Your task to perform on an android device: Open Android settings Image 0: 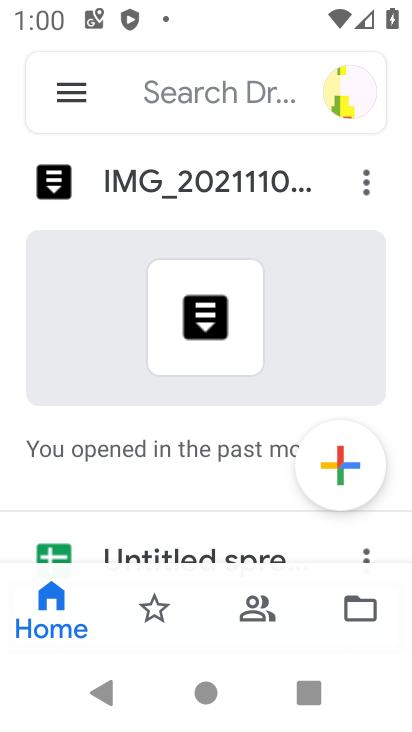
Step 0: press home button
Your task to perform on an android device: Open Android settings Image 1: 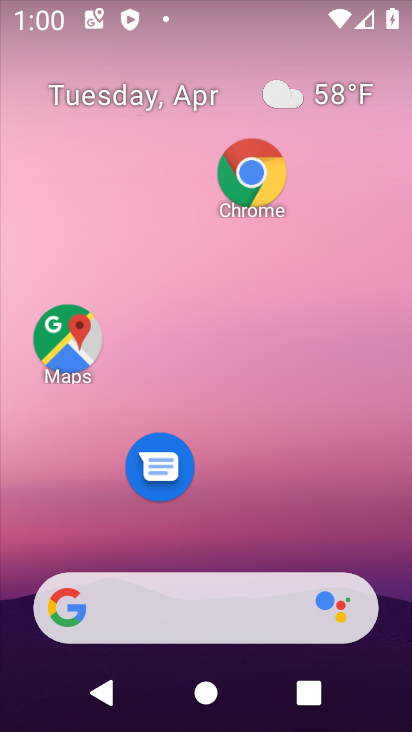
Step 1: drag from (317, 478) to (330, 8)
Your task to perform on an android device: Open Android settings Image 2: 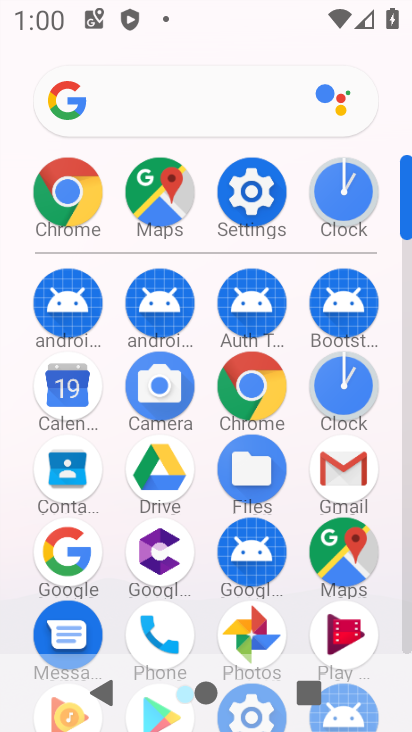
Step 2: drag from (288, 680) to (321, 185)
Your task to perform on an android device: Open Android settings Image 3: 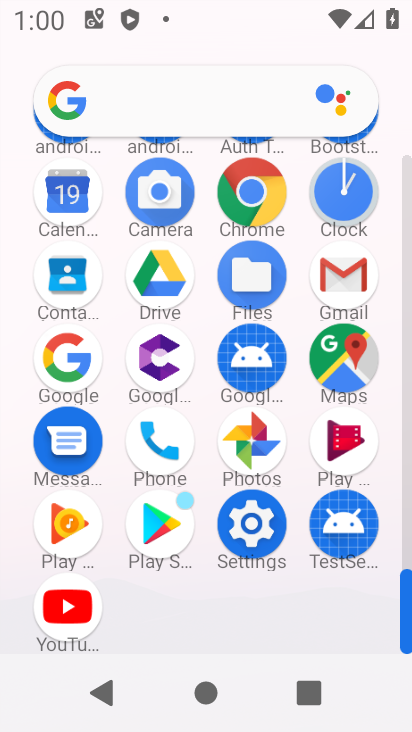
Step 3: click (256, 546)
Your task to perform on an android device: Open Android settings Image 4: 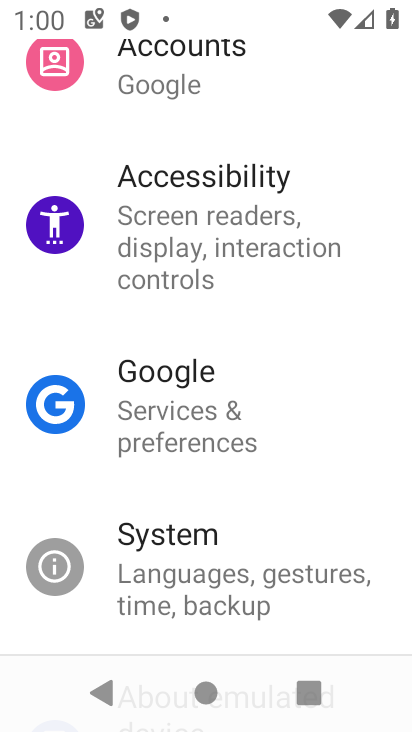
Step 4: drag from (263, 589) to (388, 51)
Your task to perform on an android device: Open Android settings Image 5: 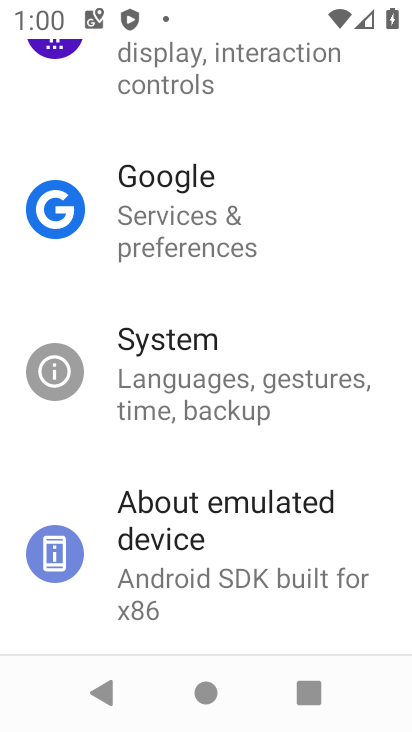
Step 5: click (264, 575)
Your task to perform on an android device: Open Android settings Image 6: 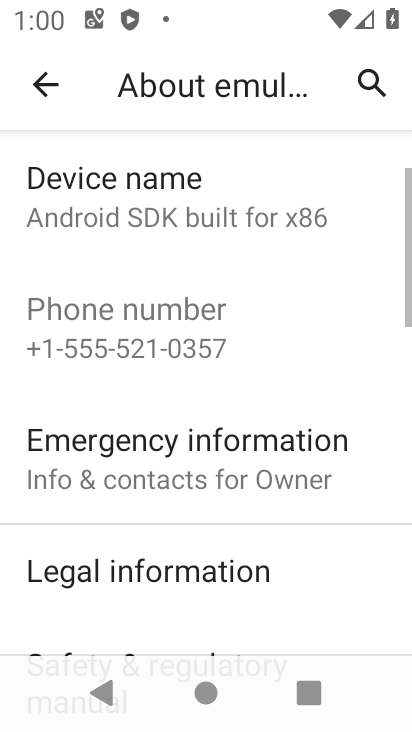
Step 6: drag from (263, 573) to (346, 97)
Your task to perform on an android device: Open Android settings Image 7: 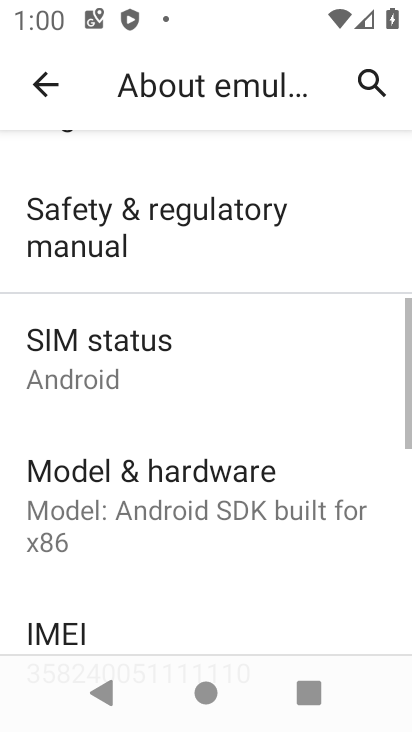
Step 7: drag from (281, 536) to (284, 126)
Your task to perform on an android device: Open Android settings Image 8: 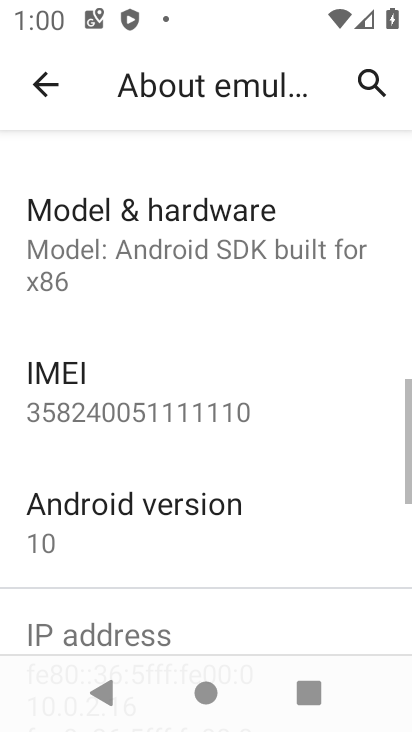
Step 8: click (213, 531)
Your task to perform on an android device: Open Android settings Image 9: 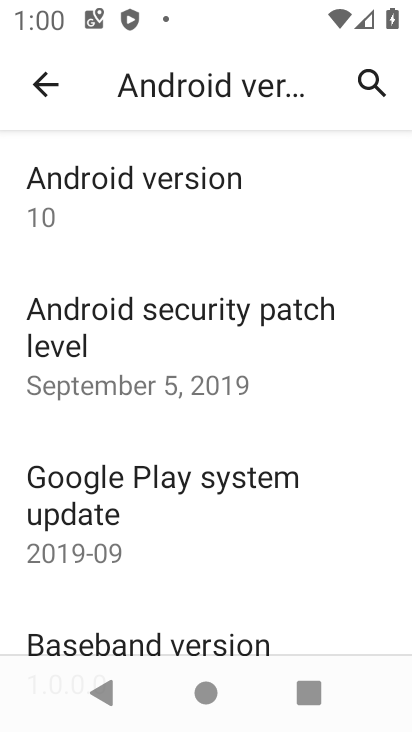
Step 9: task complete